Your task to perform on an android device: Open battery settings Image 0: 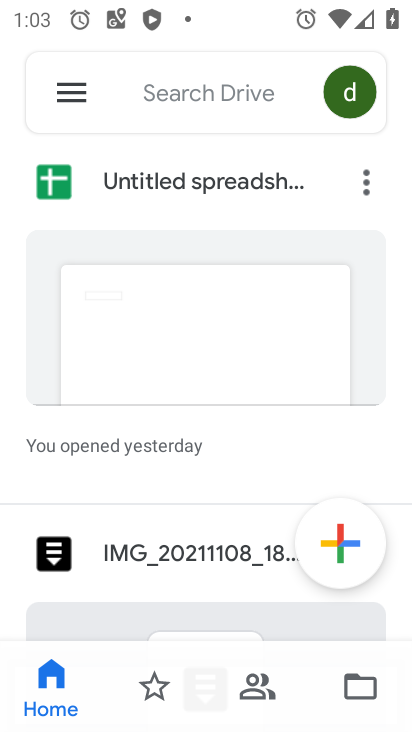
Step 0: press back button
Your task to perform on an android device: Open battery settings Image 1: 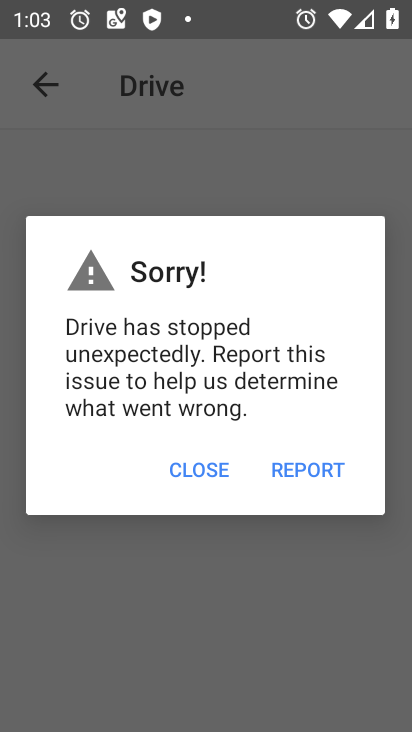
Step 1: press back button
Your task to perform on an android device: Open battery settings Image 2: 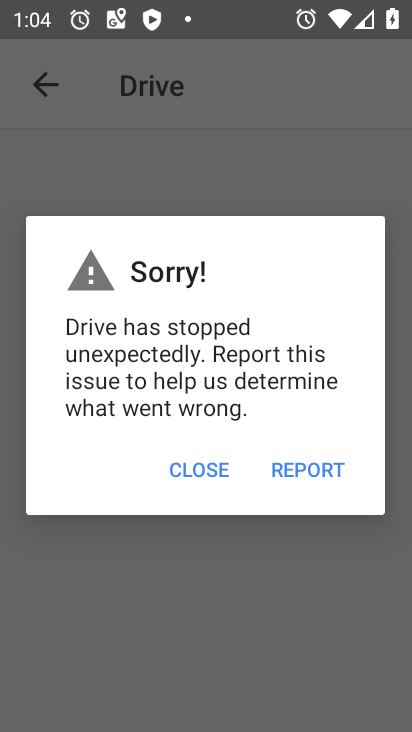
Step 2: press back button
Your task to perform on an android device: Open battery settings Image 3: 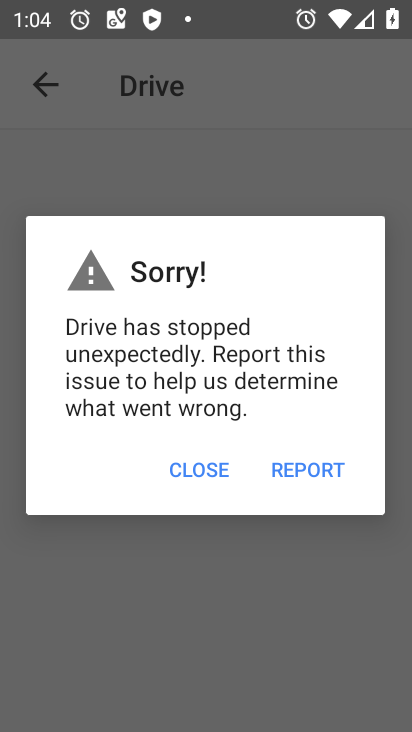
Step 3: press home button
Your task to perform on an android device: Open battery settings Image 4: 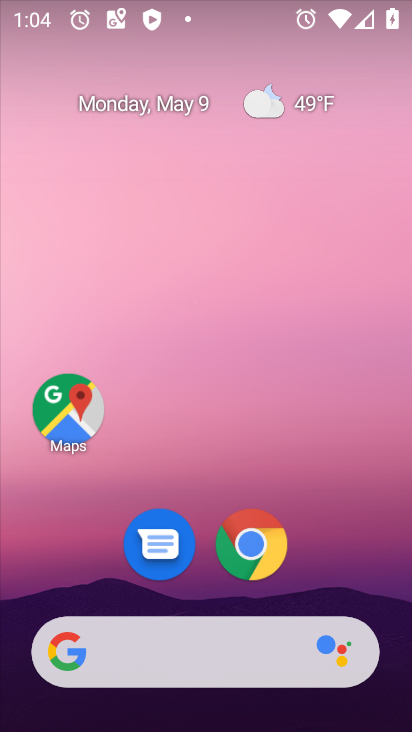
Step 4: drag from (179, 642) to (244, 144)
Your task to perform on an android device: Open battery settings Image 5: 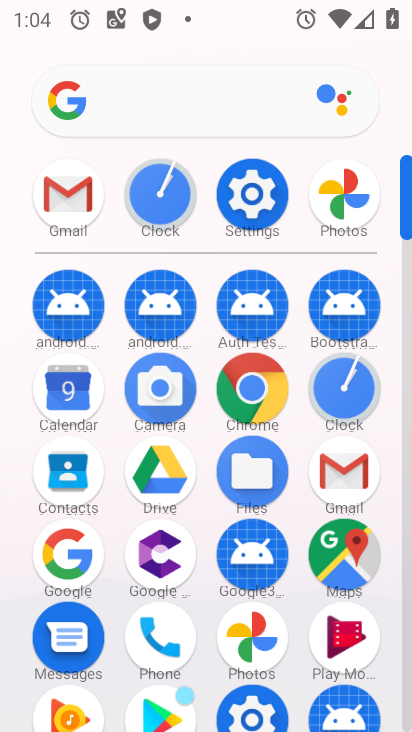
Step 5: click (282, 185)
Your task to perform on an android device: Open battery settings Image 6: 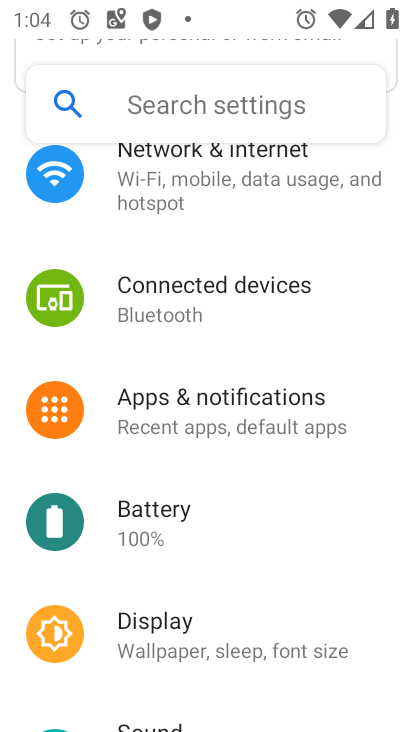
Step 6: click (116, 541)
Your task to perform on an android device: Open battery settings Image 7: 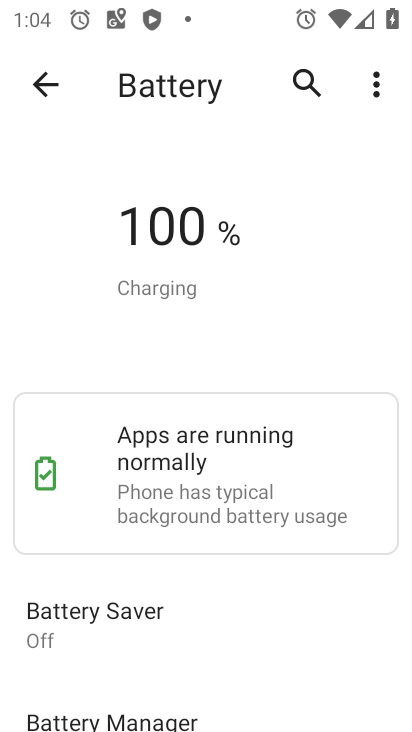
Step 7: task complete